Your task to perform on an android device: search for starred emails in the gmail app Image 0: 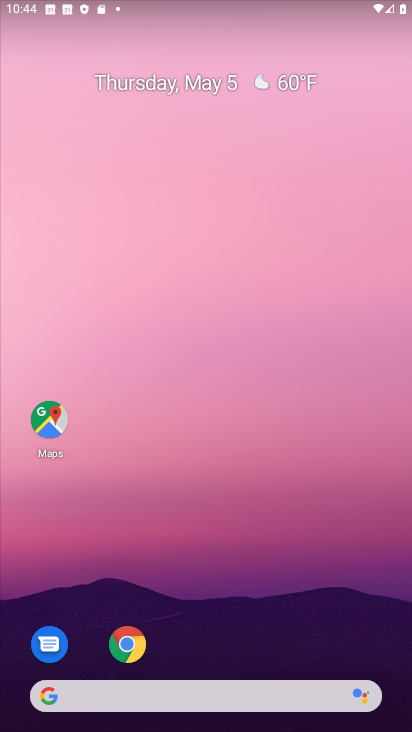
Step 0: drag from (188, 654) to (202, 122)
Your task to perform on an android device: search for starred emails in the gmail app Image 1: 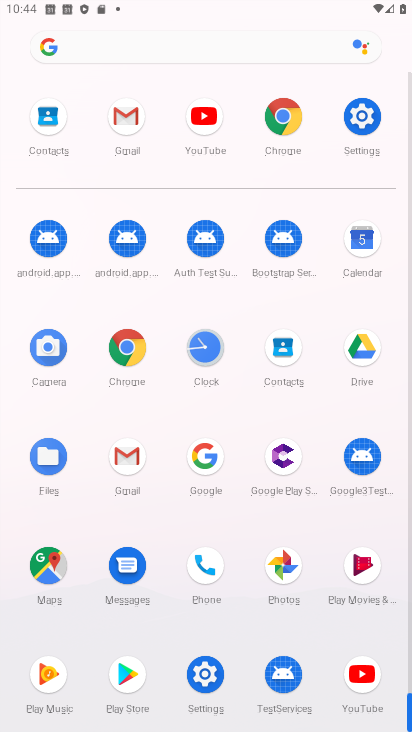
Step 1: click (125, 462)
Your task to perform on an android device: search for starred emails in the gmail app Image 2: 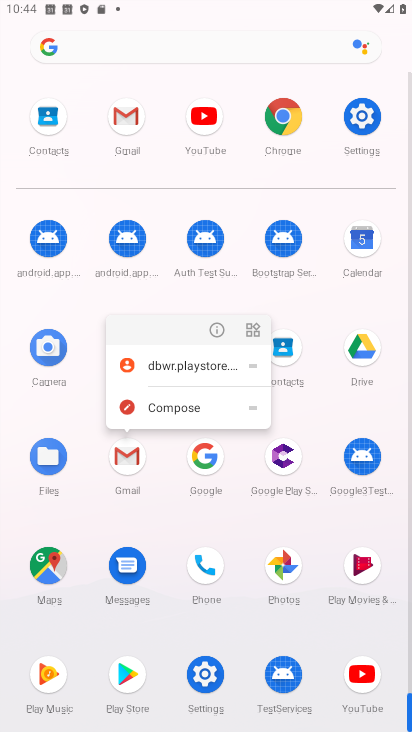
Step 2: click (219, 324)
Your task to perform on an android device: search for starred emails in the gmail app Image 3: 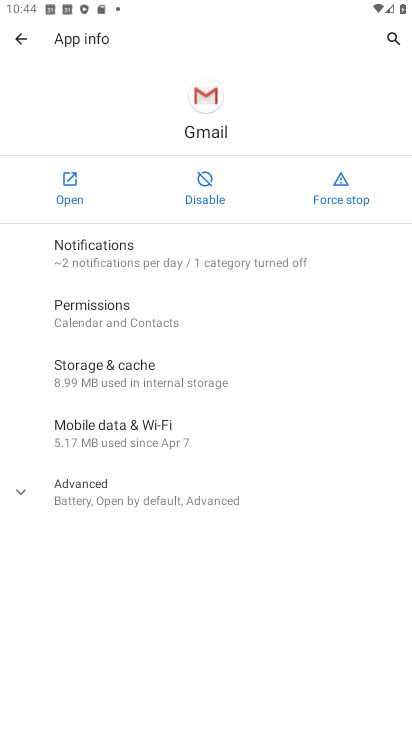
Step 3: click (81, 201)
Your task to perform on an android device: search for starred emails in the gmail app Image 4: 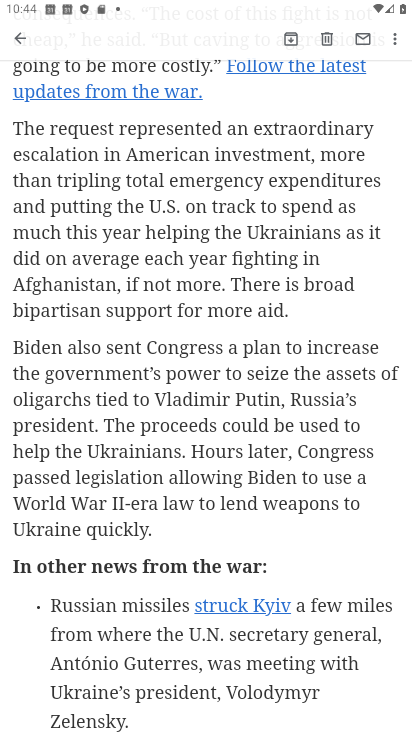
Step 4: drag from (201, 105) to (245, 565)
Your task to perform on an android device: search for starred emails in the gmail app Image 5: 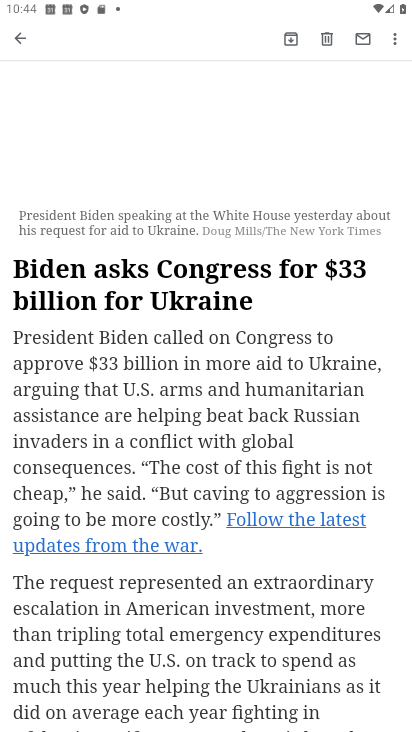
Step 5: drag from (210, 222) to (251, 706)
Your task to perform on an android device: search for starred emails in the gmail app Image 6: 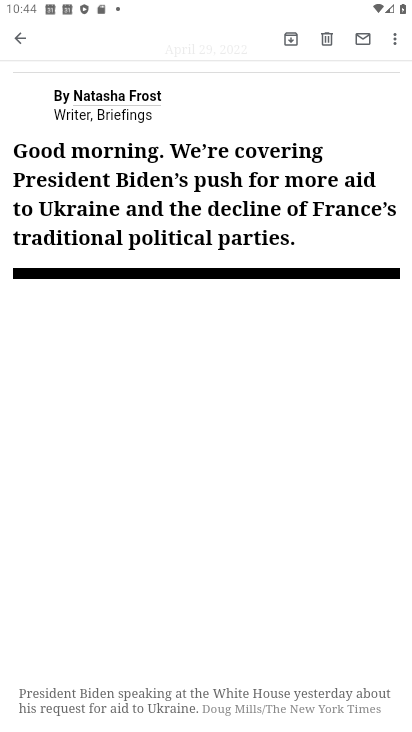
Step 6: drag from (63, 142) to (279, 590)
Your task to perform on an android device: search for starred emails in the gmail app Image 7: 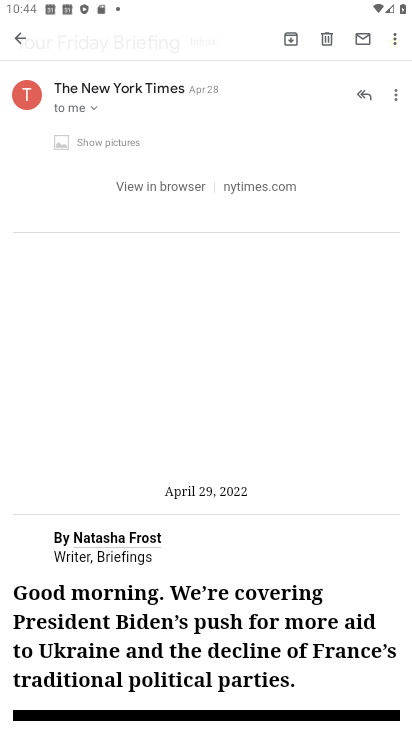
Step 7: drag from (219, 199) to (297, 581)
Your task to perform on an android device: search for starred emails in the gmail app Image 8: 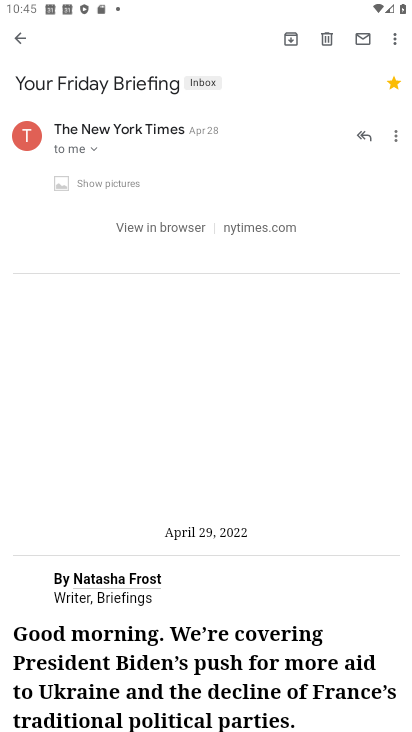
Step 8: drag from (201, 676) to (300, 144)
Your task to perform on an android device: search for starred emails in the gmail app Image 9: 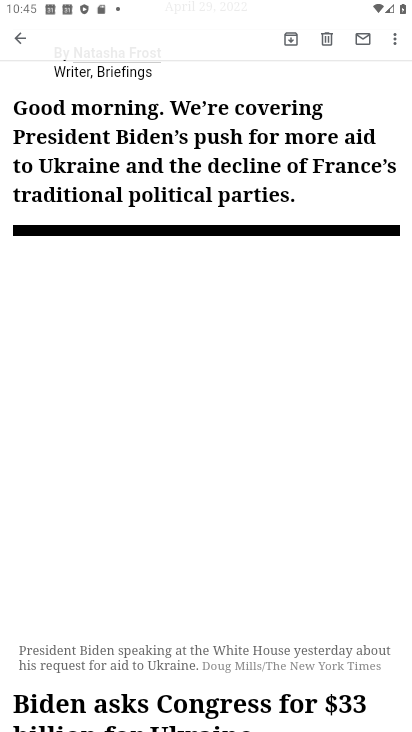
Step 9: drag from (161, 667) to (67, 27)
Your task to perform on an android device: search for starred emails in the gmail app Image 10: 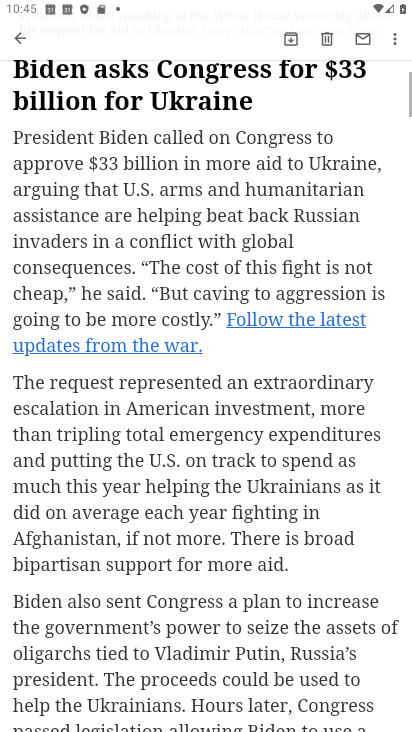
Step 10: drag from (127, 584) to (171, 260)
Your task to perform on an android device: search for starred emails in the gmail app Image 11: 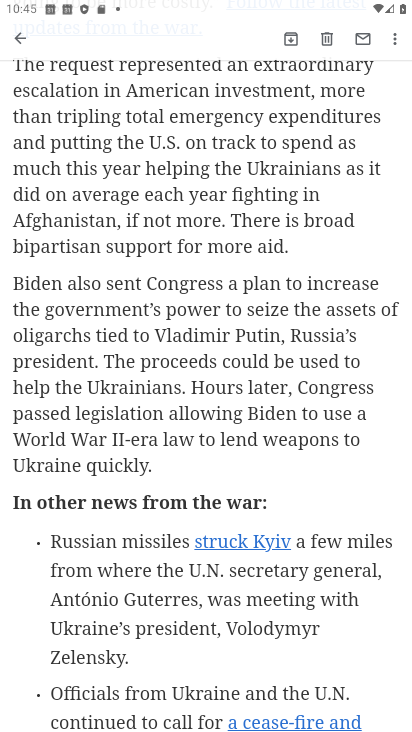
Step 11: drag from (113, 378) to (242, 8)
Your task to perform on an android device: search for starred emails in the gmail app Image 12: 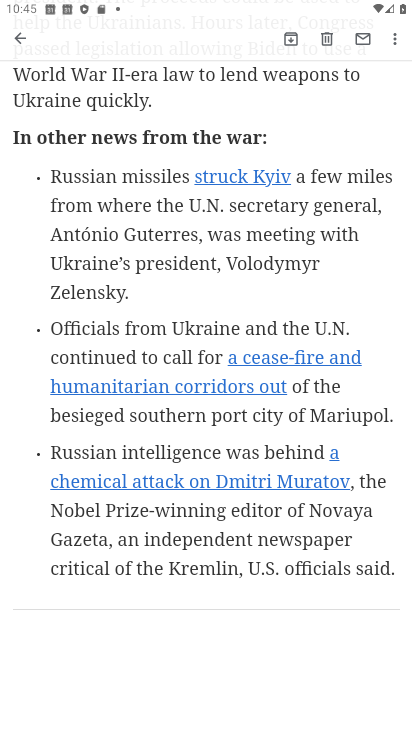
Step 12: drag from (131, 406) to (244, 40)
Your task to perform on an android device: search for starred emails in the gmail app Image 13: 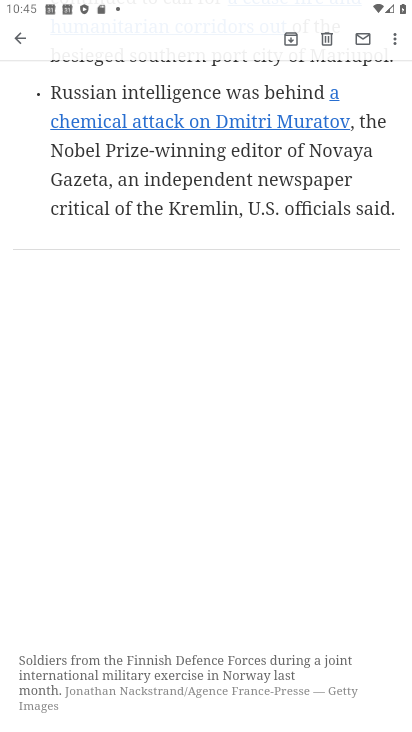
Step 13: drag from (113, 180) to (110, 278)
Your task to perform on an android device: search for starred emails in the gmail app Image 14: 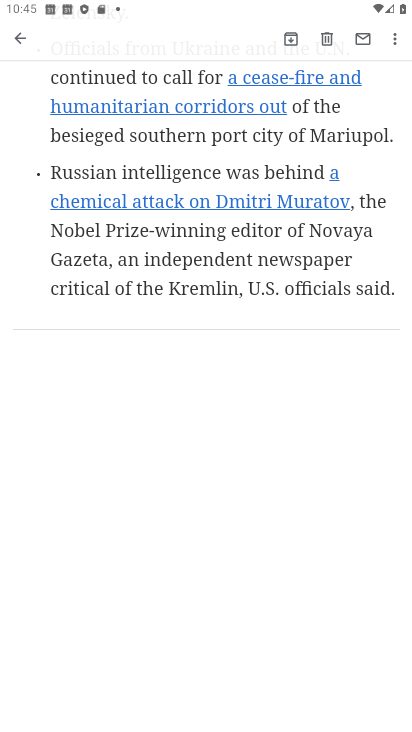
Step 14: drag from (174, 171) to (218, 448)
Your task to perform on an android device: search for starred emails in the gmail app Image 15: 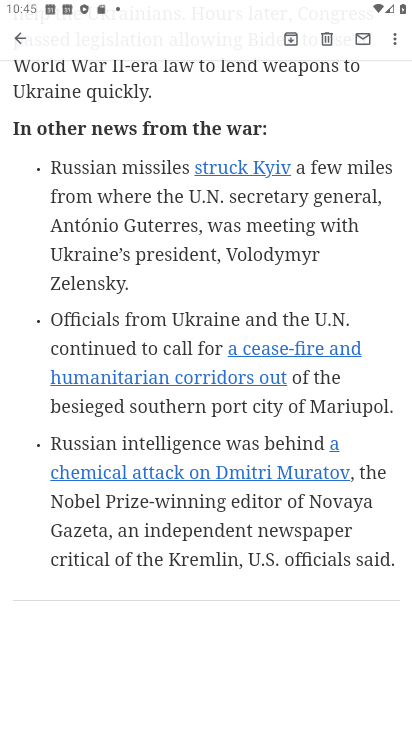
Step 15: drag from (221, 113) to (266, 360)
Your task to perform on an android device: search for starred emails in the gmail app Image 16: 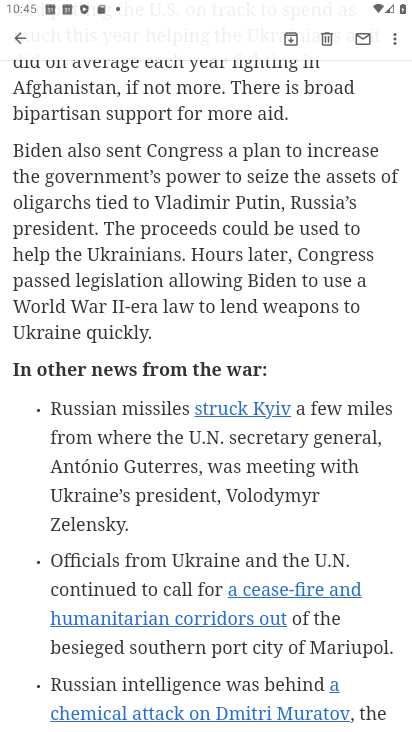
Step 16: drag from (172, 515) to (212, 292)
Your task to perform on an android device: search for starred emails in the gmail app Image 17: 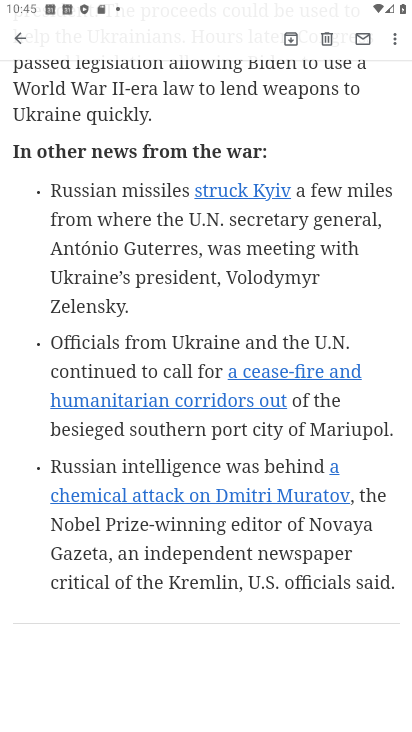
Step 17: drag from (168, 264) to (221, 528)
Your task to perform on an android device: search for starred emails in the gmail app Image 18: 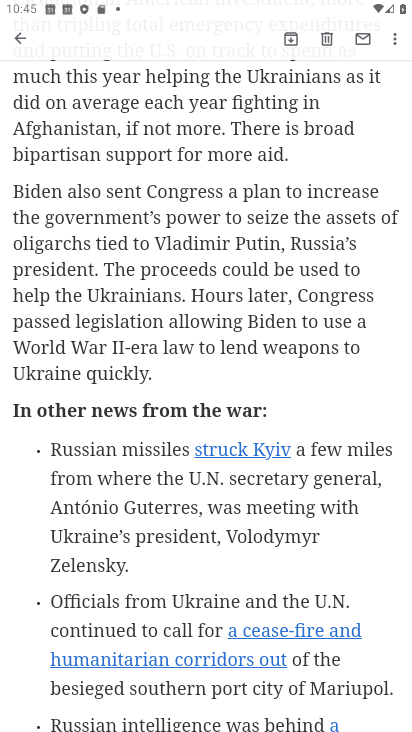
Step 18: click (22, 25)
Your task to perform on an android device: search for starred emails in the gmail app Image 19: 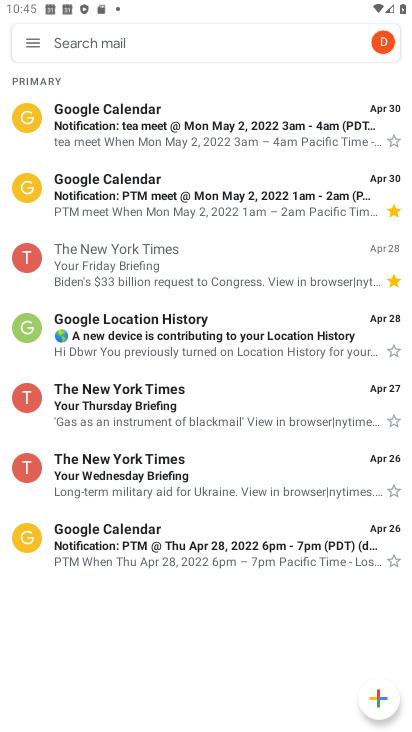
Step 19: click (28, 49)
Your task to perform on an android device: search for starred emails in the gmail app Image 20: 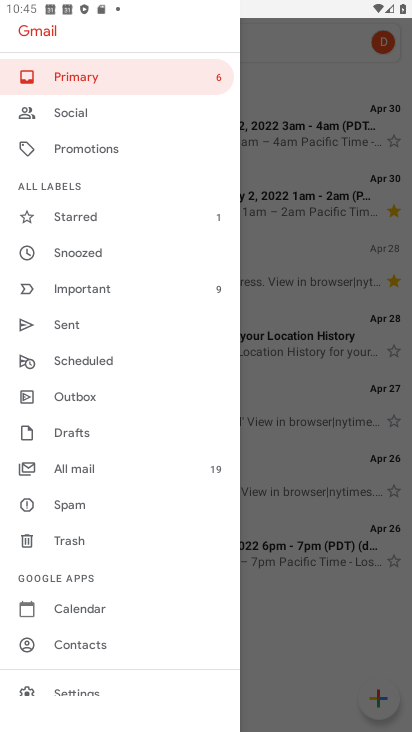
Step 20: click (93, 220)
Your task to perform on an android device: search for starred emails in the gmail app Image 21: 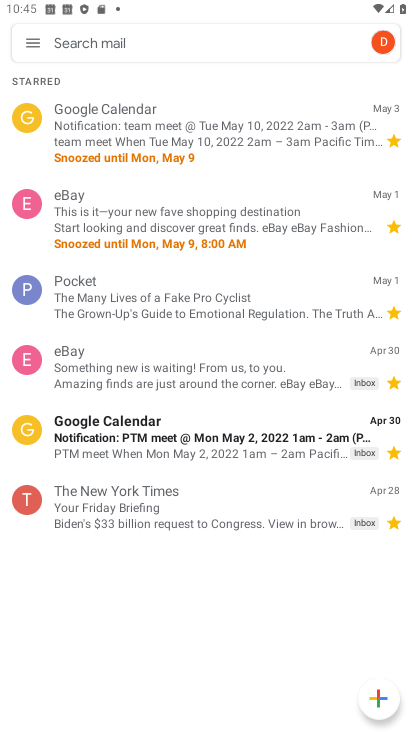
Step 21: task complete